Your task to perform on an android device: Show me productivity apps on the Play Store Image 0: 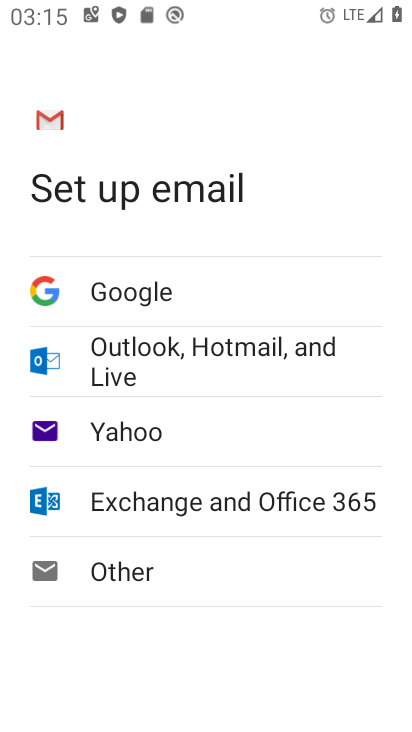
Step 0: press back button
Your task to perform on an android device: Show me productivity apps on the Play Store Image 1: 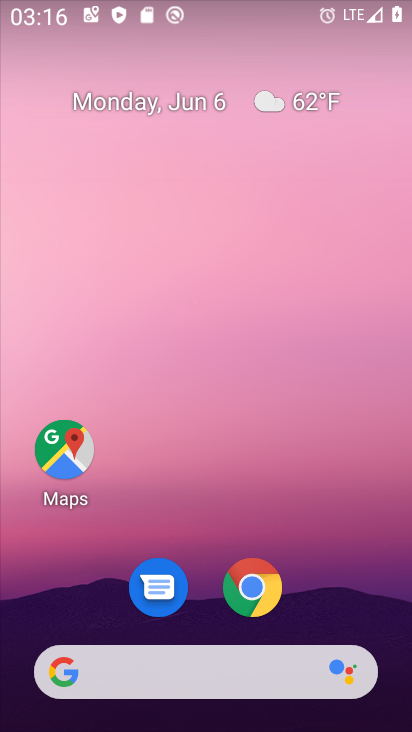
Step 1: drag from (348, 602) to (198, 2)
Your task to perform on an android device: Show me productivity apps on the Play Store Image 2: 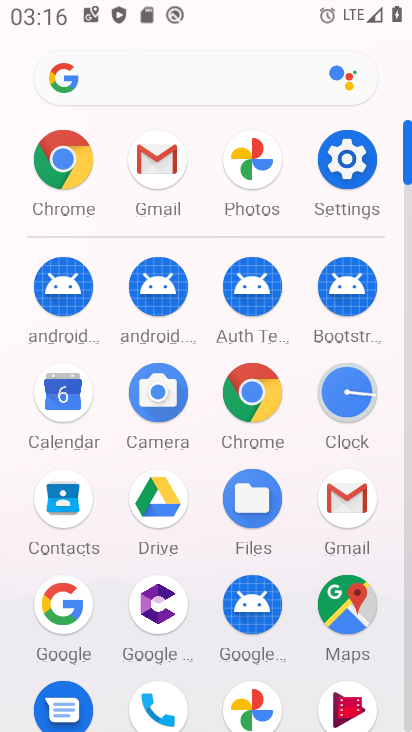
Step 2: drag from (15, 627) to (11, 277)
Your task to perform on an android device: Show me productivity apps on the Play Store Image 3: 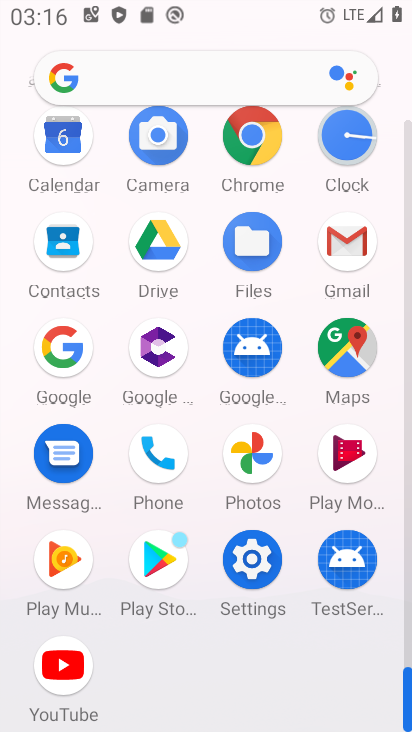
Step 3: click (152, 559)
Your task to perform on an android device: Show me productivity apps on the Play Store Image 4: 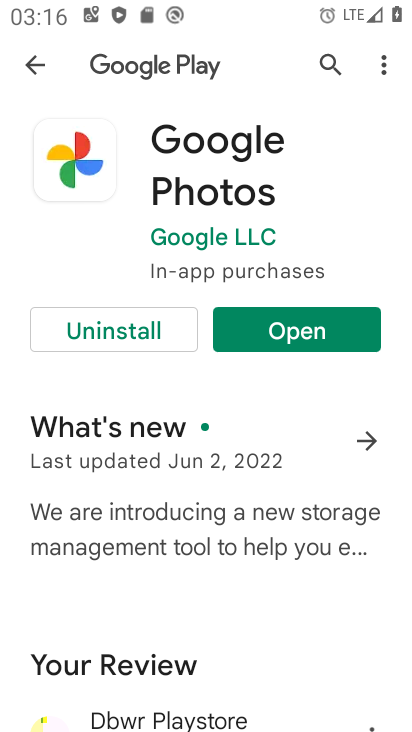
Step 4: click (33, 60)
Your task to perform on an android device: Show me productivity apps on the Play Store Image 5: 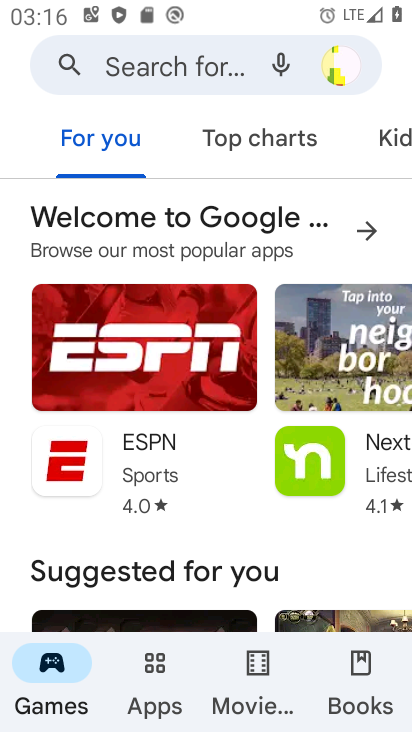
Step 5: click (164, 673)
Your task to perform on an android device: Show me productivity apps on the Play Store Image 6: 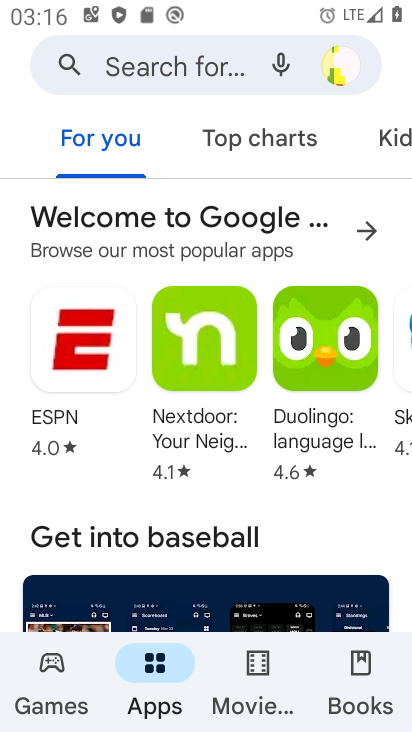
Step 6: click (397, 138)
Your task to perform on an android device: Show me productivity apps on the Play Store Image 7: 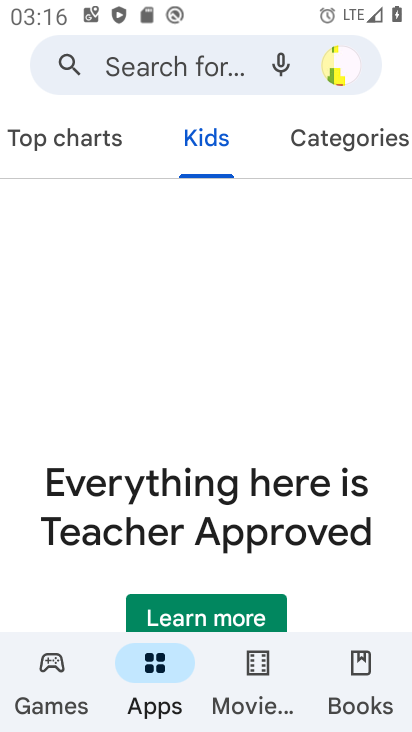
Step 7: click (364, 138)
Your task to perform on an android device: Show me productivity apps on the Play Store Image 8: 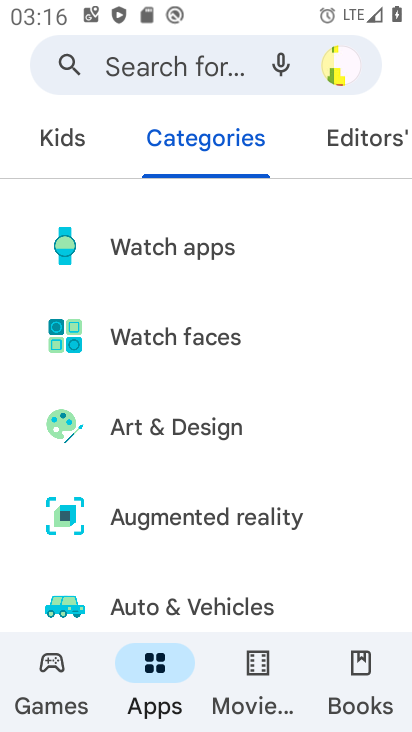
Step 8: drag from (251, 609) to (252, 212)
Your task to perform on an android device: Show me productivity apps on the Play Store Image 9: 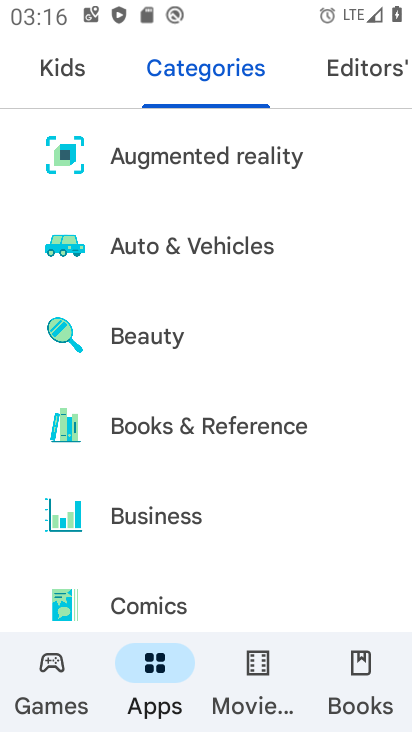
Step 9: drag from (256, 502) to (255, 198)
Your task to perform on an android device: Show me productivity apps on the Play Store Image 10: 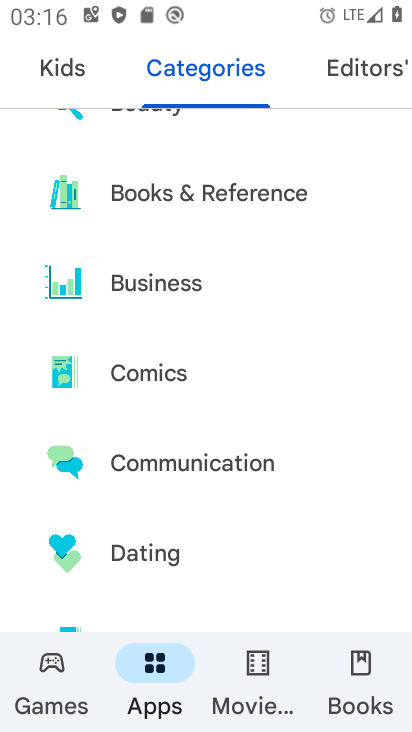
Step 10: drag from (230, 537) to (241, 210)
Your task to perform on an android device: Show me productivity apps on the Play Store Image 11: 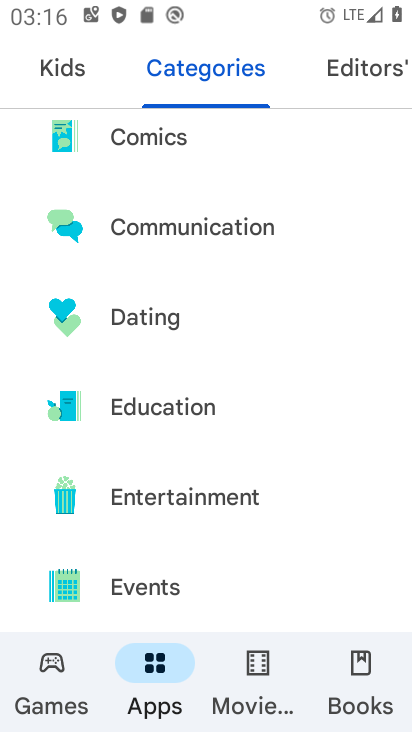
Step 11: drag from (231, 515) to (232, 164)
Your task to perform on an android device: Show me productivity apps on the Play Store Image 12: 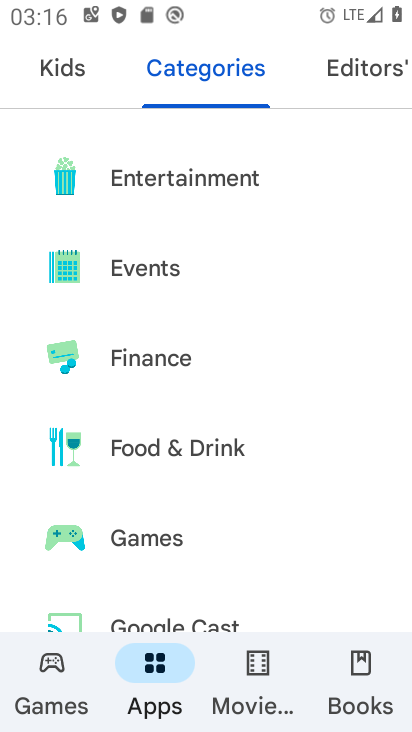
Step 12: drag from (204, 523) to (227, 212)
Your task to perform on an android device: Show me productivity apps on the Play Store Image 13: 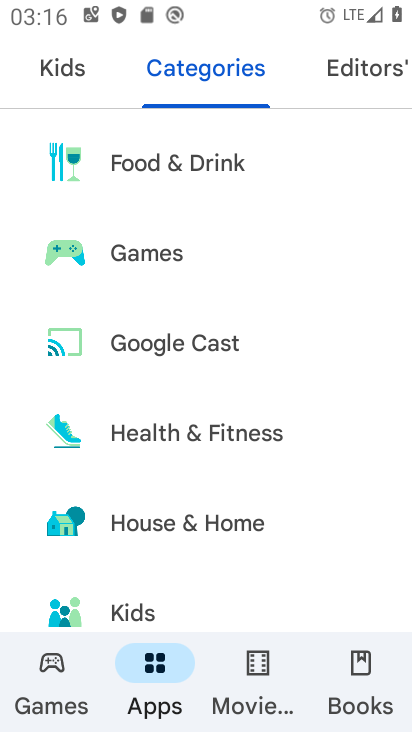
Step 13: drag from (206, 562) to (255, 196)
Your task to perform on an android device: Show me productivity apps on the Play Store Image 14: 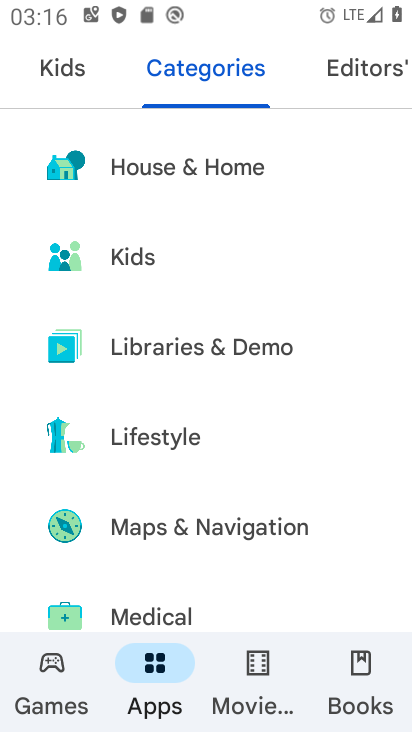
Step 14: drag from (223, 482) to (245, 199)
Your task to perform on an android device: Show me productivity apps on the Play Store Image 15: 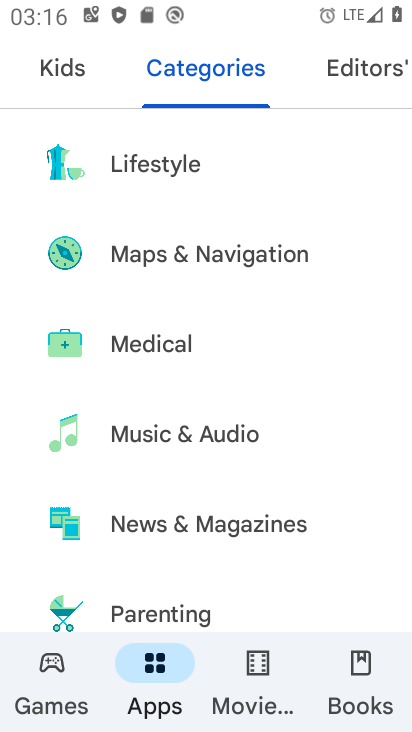
Step 15: drag from (244, 514) to (282, 187)
Your task to perform on an android device: Show me productivity apps on the Play Store Image 16: 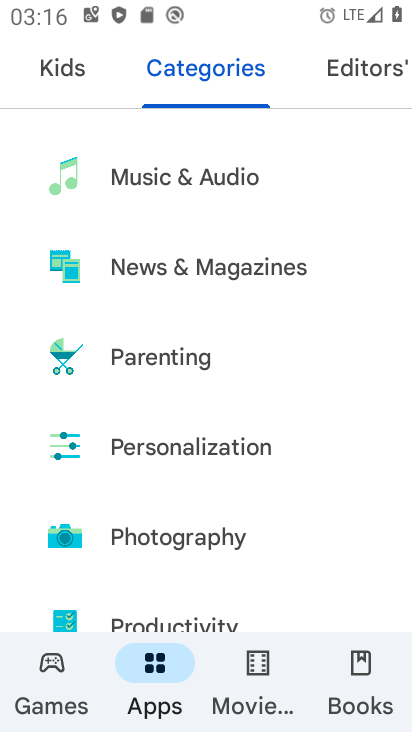
Step 16: drag from (259, 540) to (263, 260)
Your task to perform on an android device: Show me productivity apps on the Play Store Image 17: 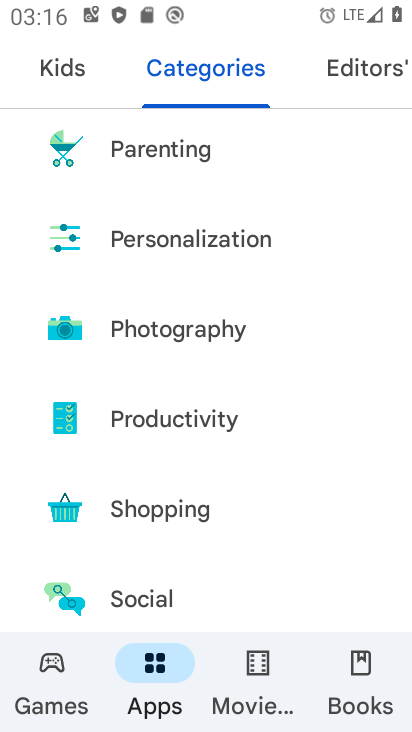
Step 17: click (177, 424)
Your task to perform on an android device: Show me productivity apps on the Play Store Image 18: 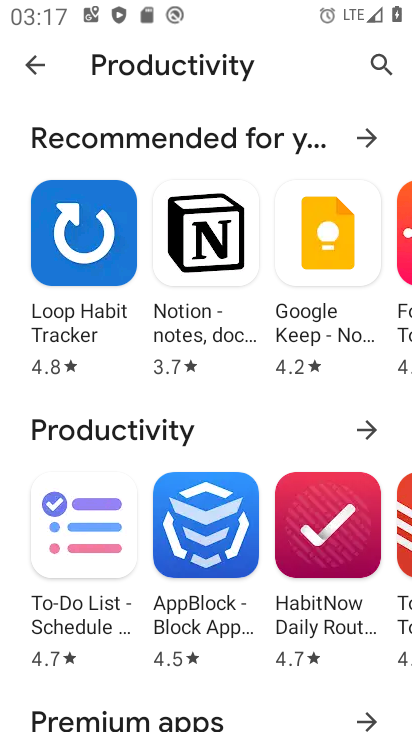
Step 18: task complete